Your task to perform on an android device: toggle priority inbox in the gmail app Image 0: 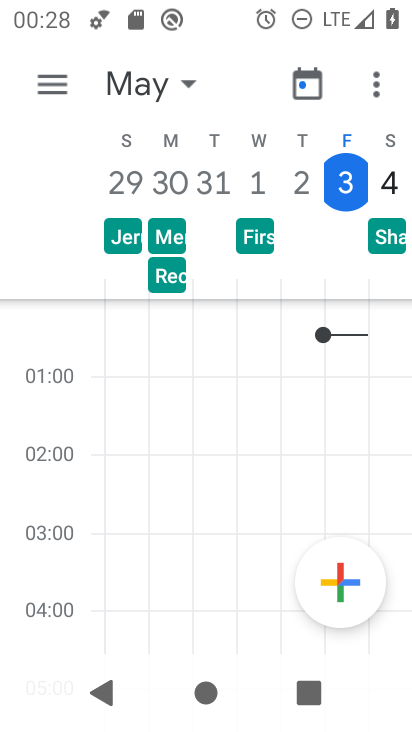
Step 0: press home button
Your task to perform on an android device: toggle priority inbox in the gmail app Image 1: 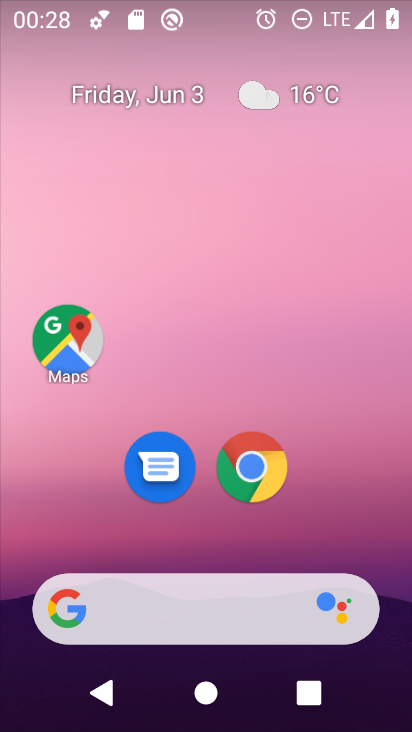
Step 1: drag from (402, 616) to (337, 207)
Your task to perform on an android device: toggle priority inbox in the gmail app Image 2: 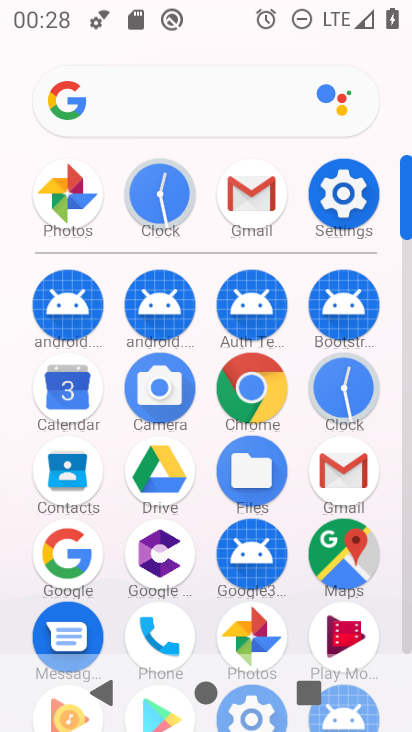
Step 2: click (340, 471)
Your task to perform on an android device: toggle priority inbox in the gmail app Image 3: 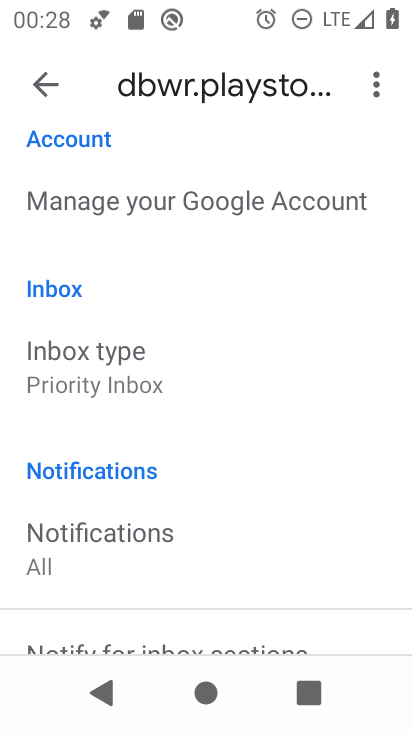
Step 3: click (93, 362)
Your task to perform on an android device: toggle priority inbox in the gmail app Image 4: 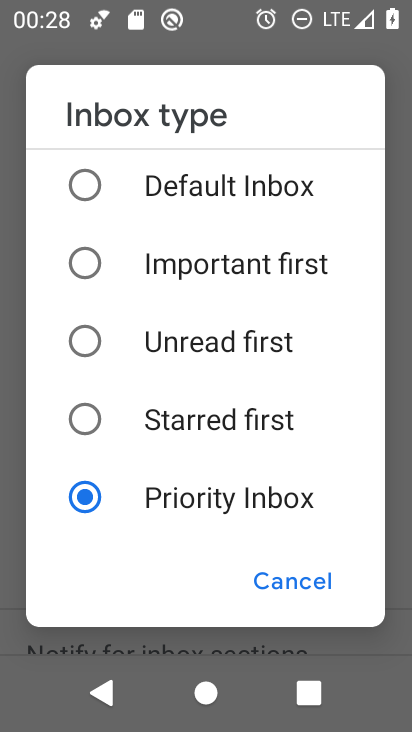
Step 4: click (85, 272)
Your task to perform on an android device: toggle priority inbox in the gmail app Image 5: 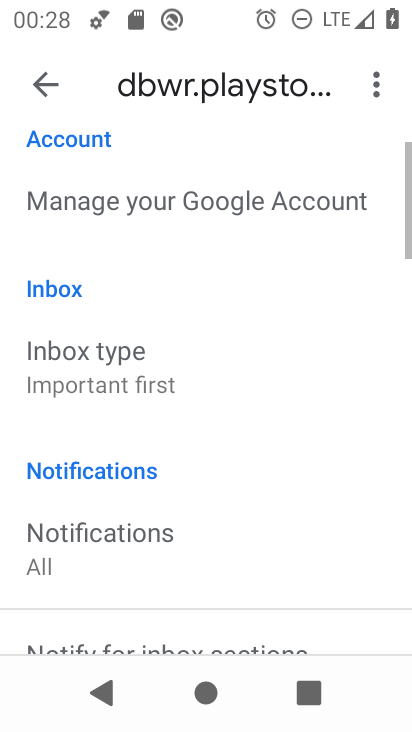
Step 5: task complete